Your task to perform on an android device: Open Google Maps Image 0: 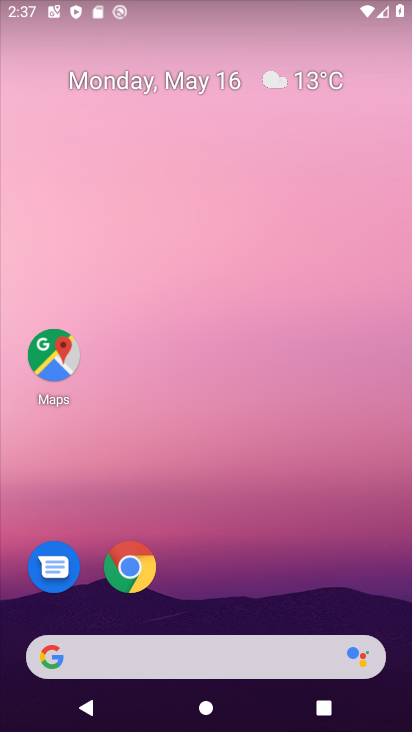
Step 0: click (55, 356)
Your task to perform on an android device: Open Google Maps Image 1: 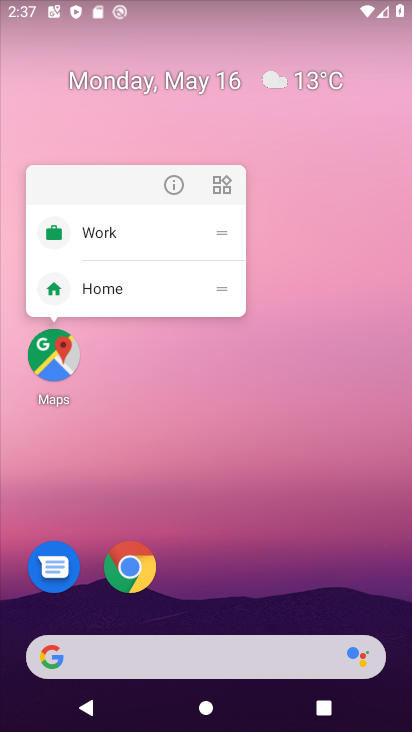
Step 1: click (55, 356)
Your task to perform on an android device: Open Google Maps Image 2: 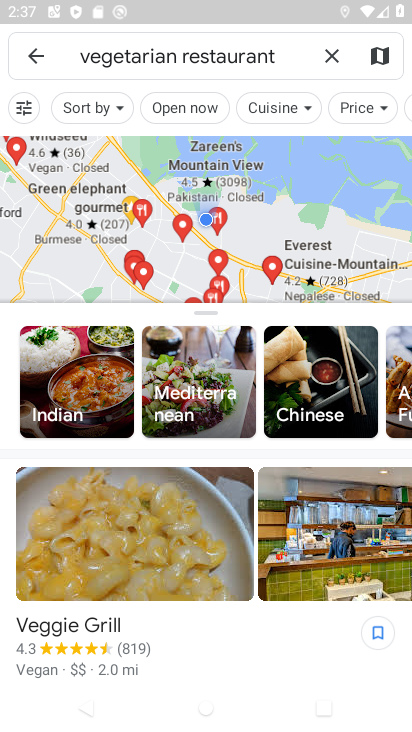
Step 2: task complete